Your task to perform on an android device: What's the weather going to be this weekend? Image 0: 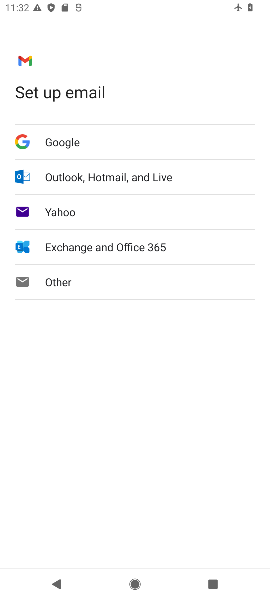
Step 0: press home button
Your task to perform on an android device: What's the weather going to be this weekend? Image 1: 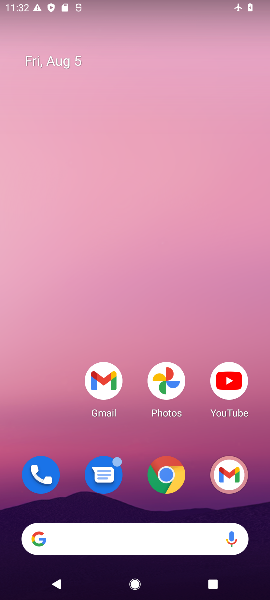
Step 1: click (97, 540)
Your task to perform on an android device: What's the weather going to be this weekend? Image 2: 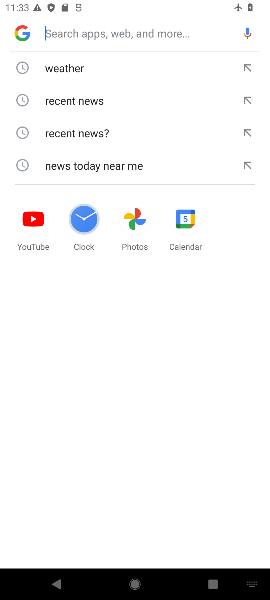
Step 2: click (79, 70)
Your task to perform on an android device: What's the weather going to be this weekend? Image 3: 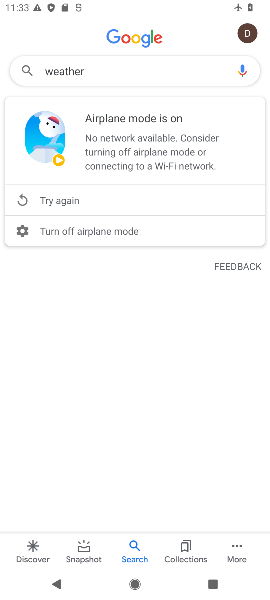
Step 3: task complete